Your task to perform on an android device: Open calendar and show me the fourth week of next month Image 0: 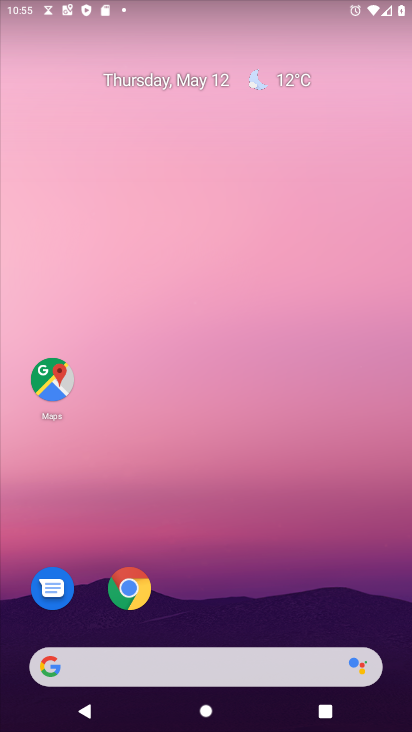
Step 0: drag from (229, 590) to (215, 108)
Your task to perform on an android device: Open calendar and show me the fourth week of next month Image 1: 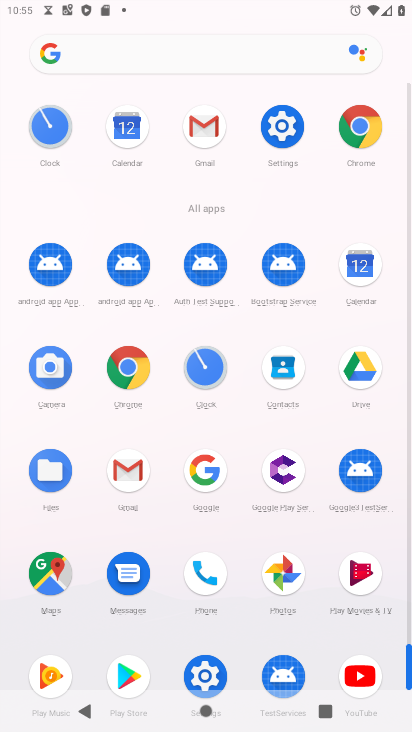
Step 1: click (362, 265)
Your task to perform on an android device: Open calendar and show me the fourth week of next month Image 2: 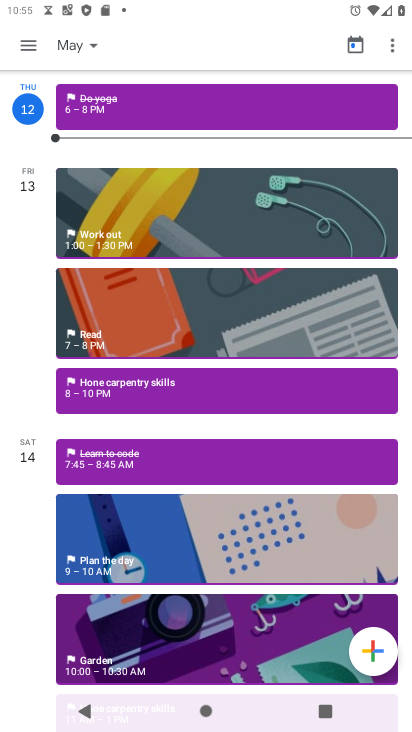
Step 2: click (91, 46)
Your task to perform on an android device: Open calendar and show me the fourth week of next month Image 3: 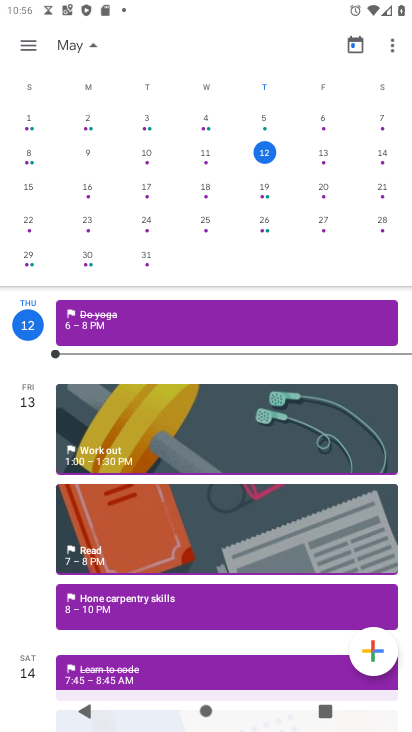
Step 3: drag from (375, 185) to (13, 231)
Your task to perform on an android device: Open calendar and show me the fourth week of next month Image 4: 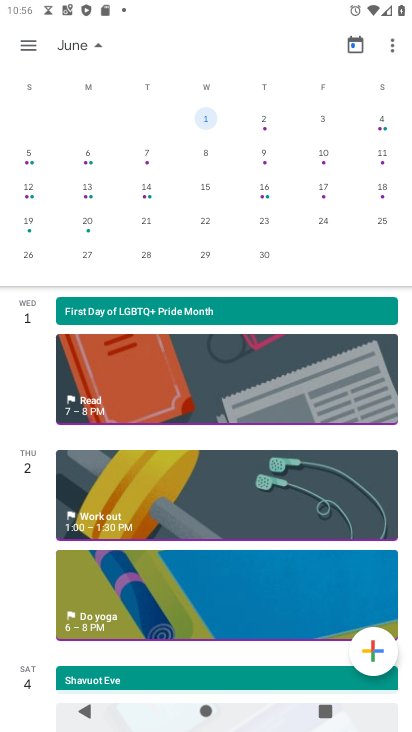
Step 4: click (90, 258)
Your task to perform on an android device: Open calendar and show me the fourth week of next month Image 5: 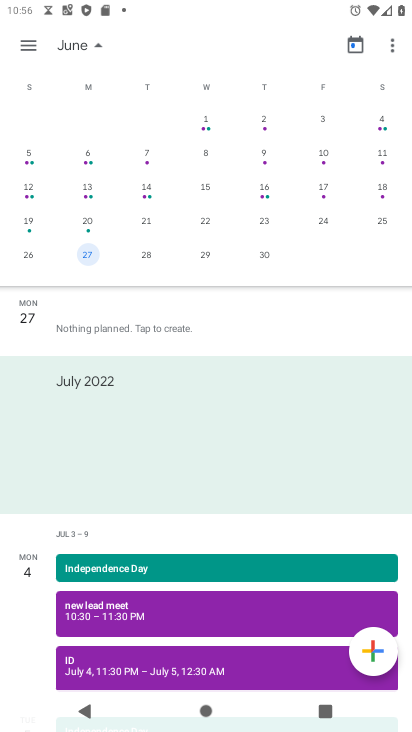
Step 5: click (27, 47)
Your task to perform on an android device: Open calendar and show me the fourth week of next month Image 6: 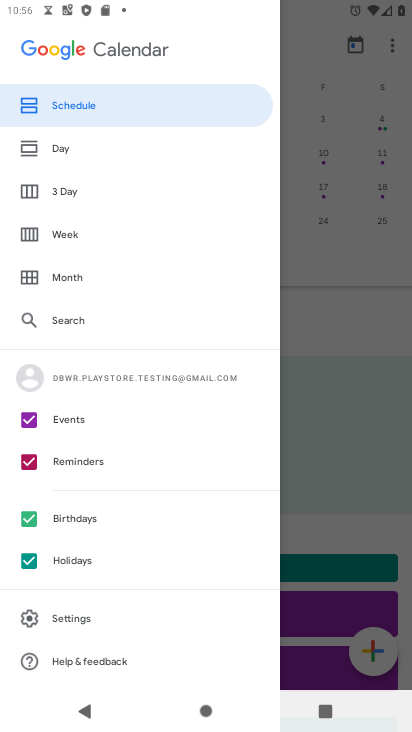
Step 6: click (57, 232)
Your task to perform on an android device: Open calendar and show me the fourth week of next month Image 7: 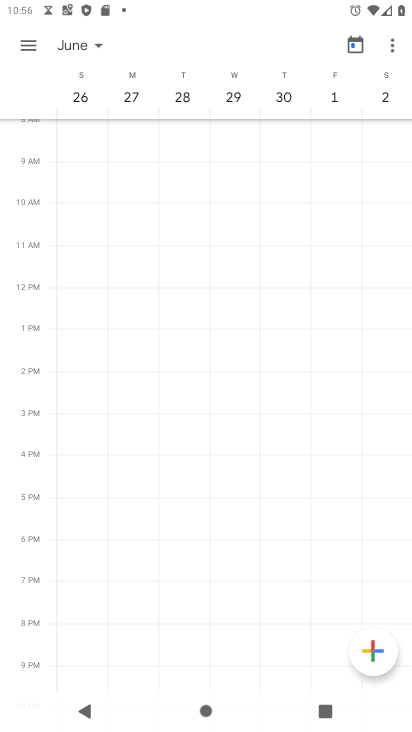
Step 7: task complete